Your task to perform on an android device: turn off data saver in the chrome app Image 0: 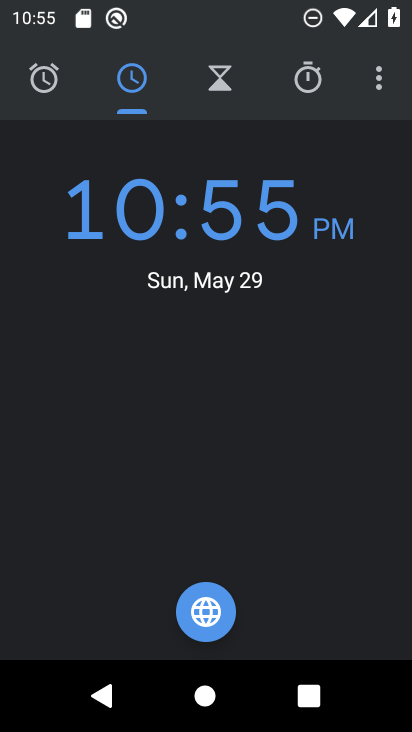
Step 0: press home button
Your task to perform on an android device: turn off data saver in the chrome app Image 1: 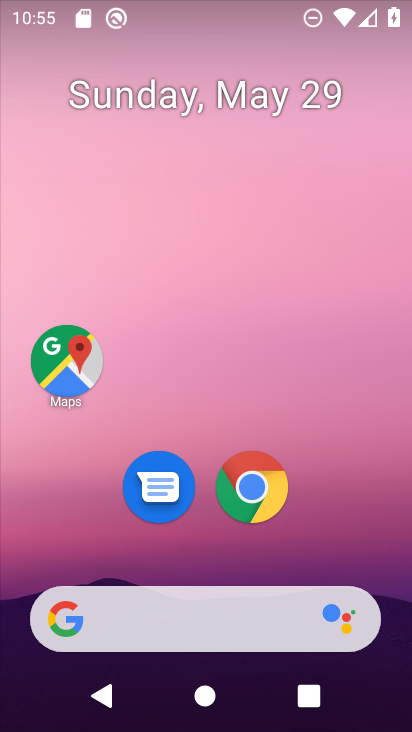
Step 1: click (259, 473)
Your task to perform on an android device: turn off data saver in the chrome app Image 2: 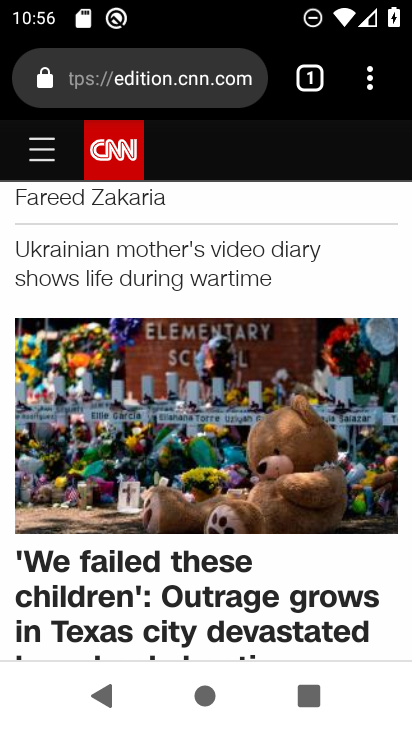
Step 2: click (369, 77)
Your task to perform on an android device: turn off data saver in the chrome app Image 3: 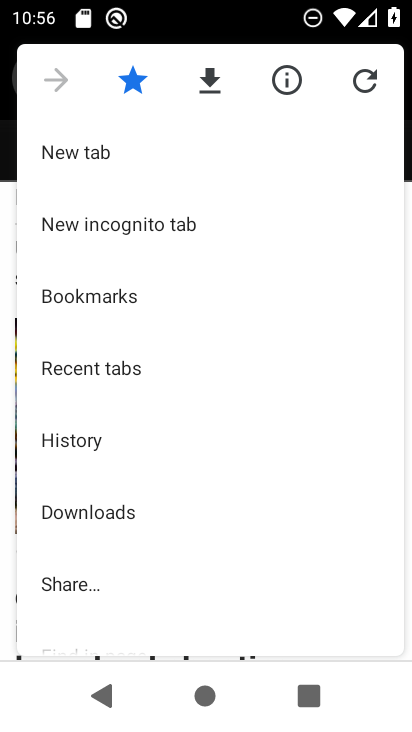
Step 3: drag from (161, 599) to (189, 11)
Your task to perform on an android device: turn off data saver in the chrome app Image 4: 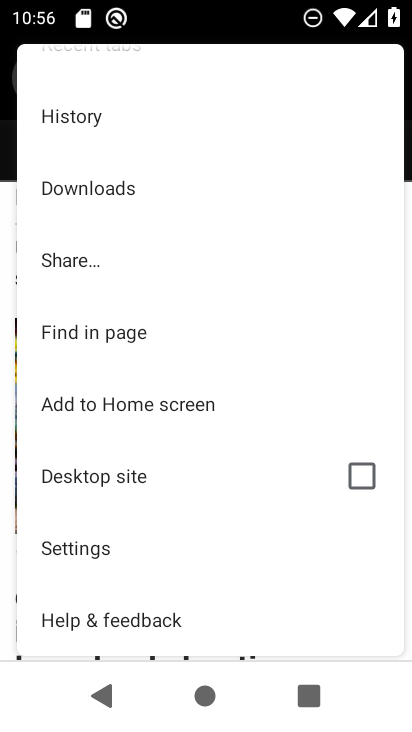
Step 4: click (124, 537)
Your task to perform on an android device: turn off data saver in the chrome app Image 5: 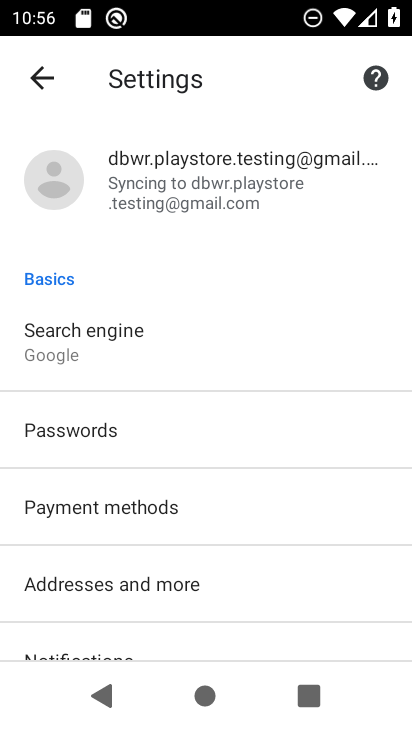
Step 5: drag from (197, 597) to (189, 175)
Your task to perform on an android device: turn off data saver in the chrome app Image 6: 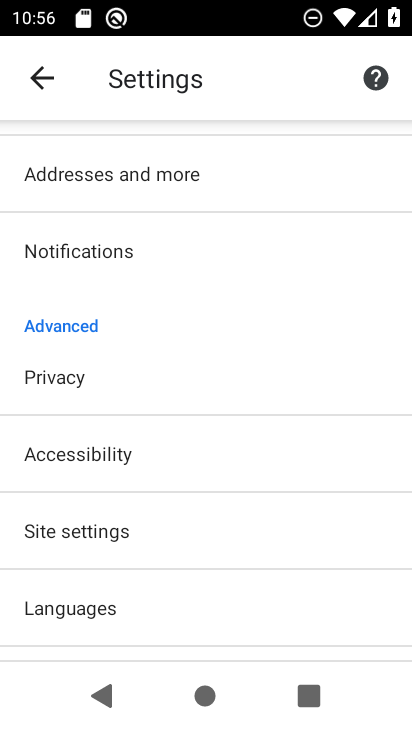
Step 6: drag from (147, 593) to (166, 240)
Your task to perform on an android device: turn off data saver in the chrome app Image 7: 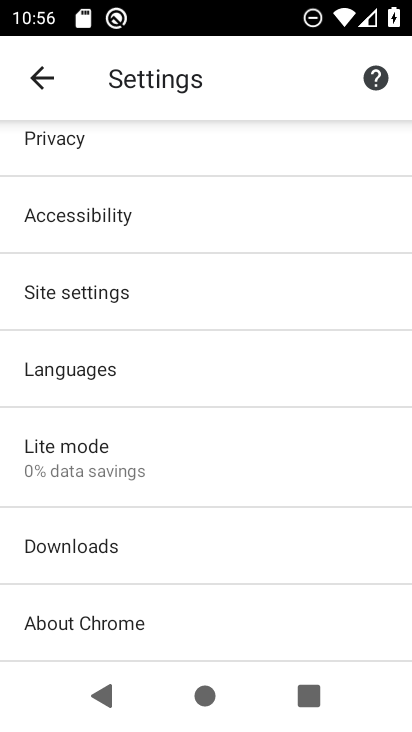
Step 7: click (147, 455)
Your task to perform on an android device: turn off data saver in the chrome app Image 8: 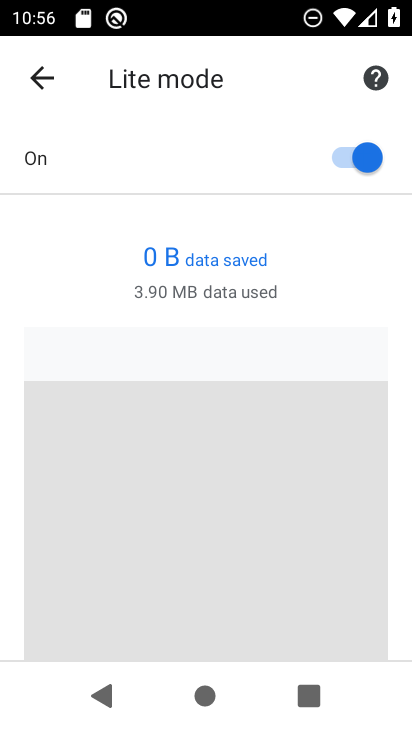
Step 8: click (332, 168)
Your task to perform on an android device: turn off data saver in the chrome app Image 9: 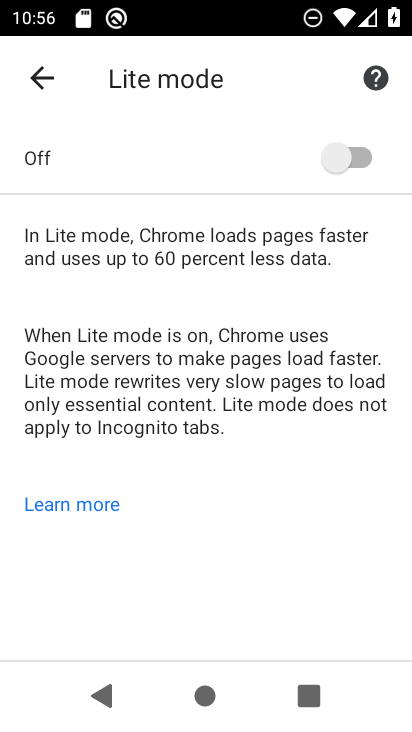
Step 9: task complete